Your task to perform on an android device: Search for razer thresher on ebay, select the first entry, add it to the cart, then select checkout. Image 0: 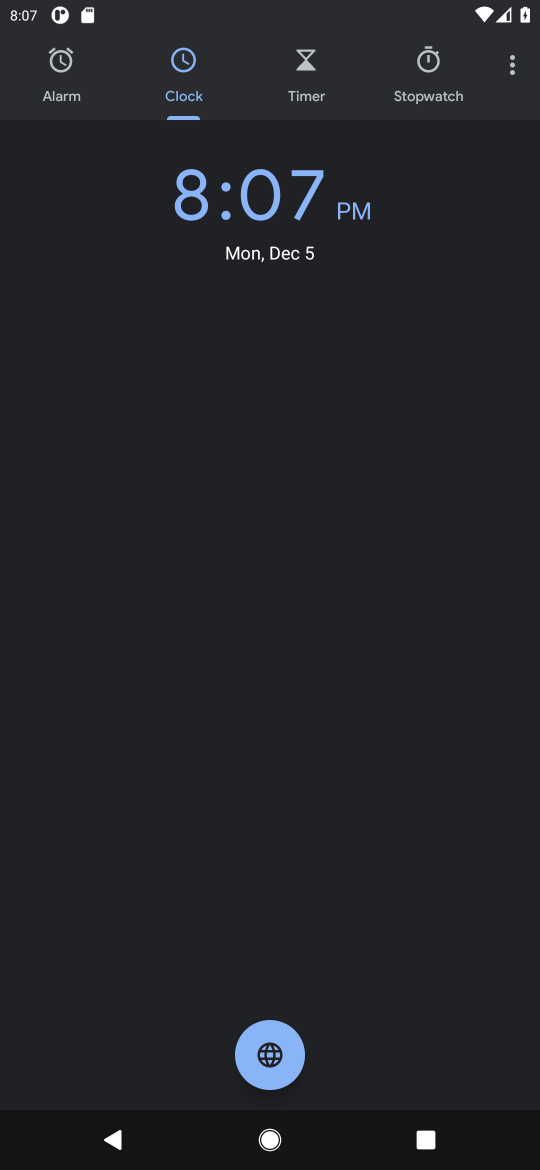
Step 0: press home button
Your task to perform on an android device: Search for razer thresher on ebay, select the first entry, add it to the cart, then select checkout. Image 1: 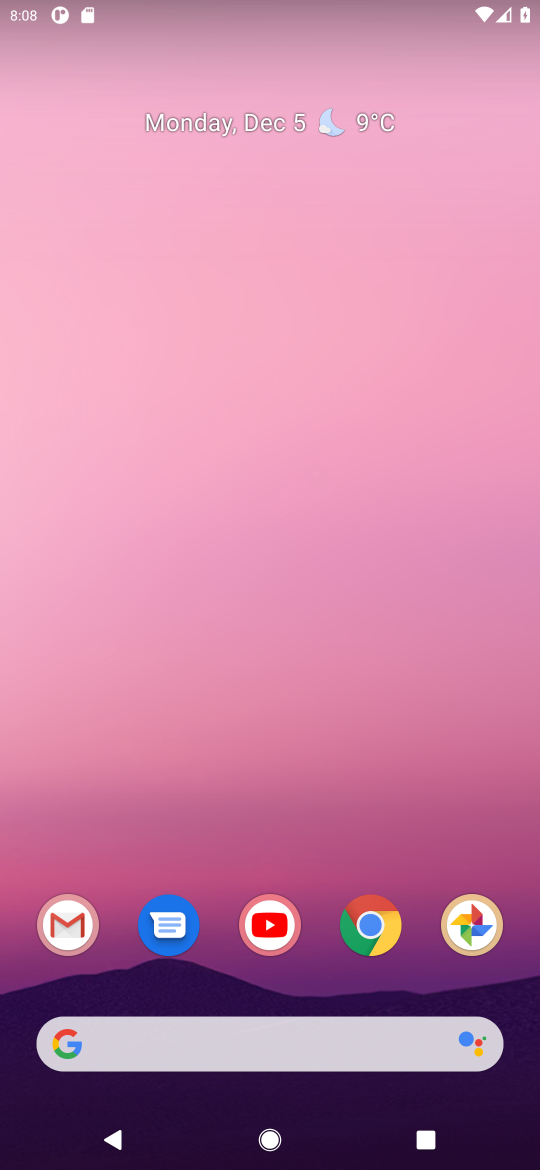
Step 1: click (378, 932)
Your task to perform on an android device: Search for razer thresher on ebay, select the first entry, add it to the cart, then select checkout. Image 2: 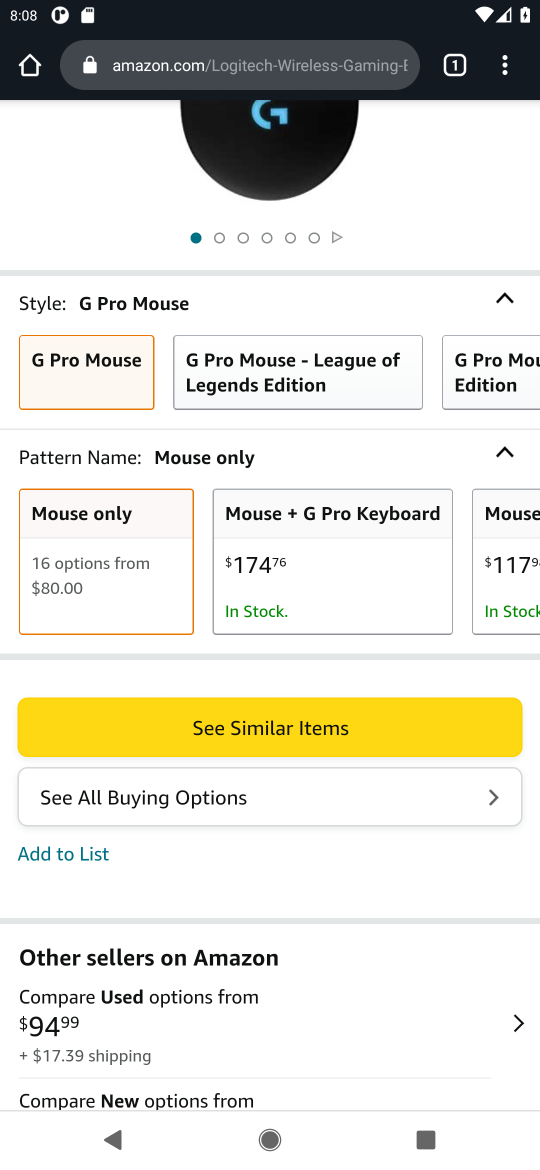
Step 2: click (144, 79)
Your task to perform on an android device: Search for razer thresher on ebay, select the first entry, add it to the cart, then select checkout. Image 3: 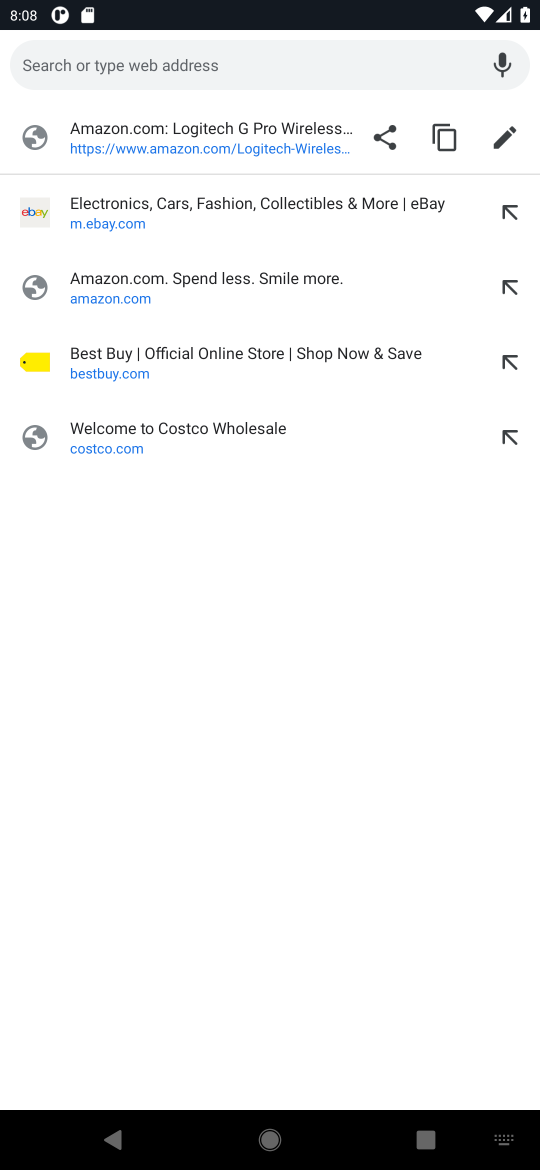
Step 3: click (119, 228)
Your task to perform on an android device: Search for razer thresher on ebay, select the first entry, add it to the cart, then select checkout. Image 4: 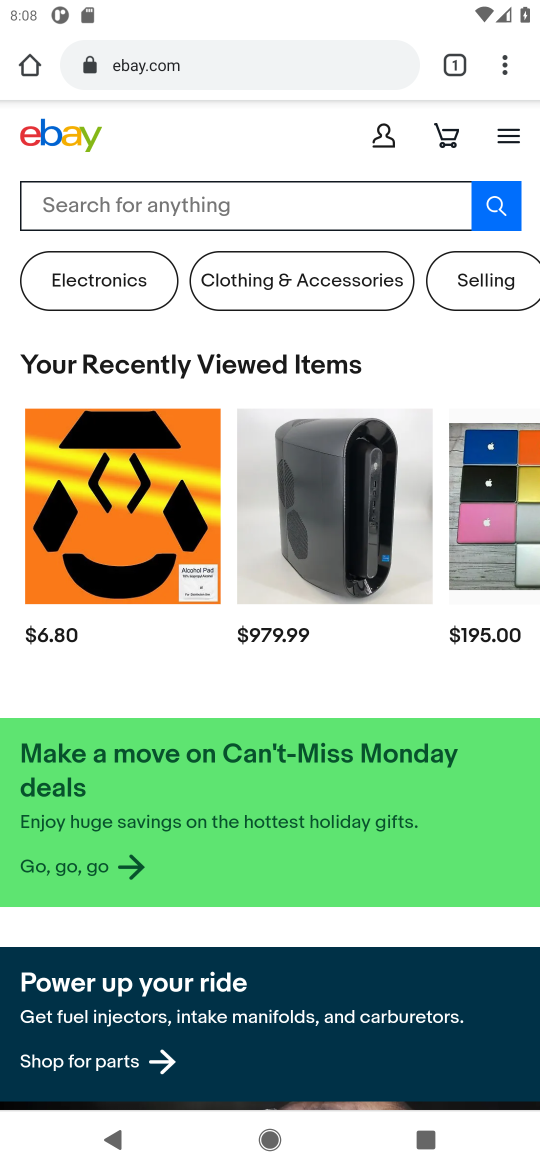
Step 4: click (90, 215)
Your task to perform on an android device: Search for razer thresher on ebay, select the first entry, add it to the cart, then select checkout. Image 5: 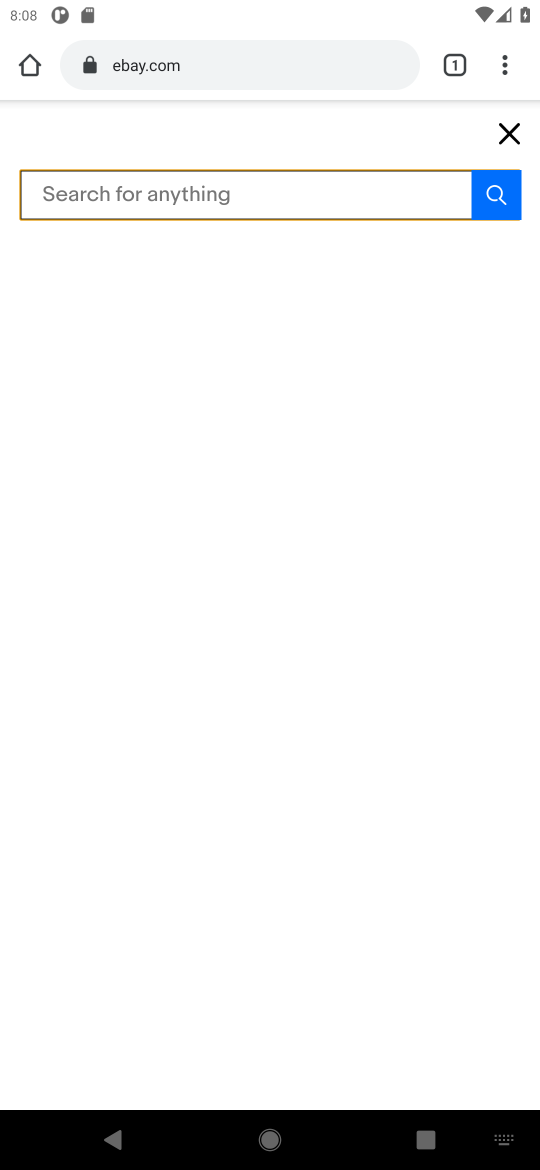
Step 5: type "razer thresher"
Your task to perform on an android device: Search for razer thresher on ebay, select the first entry, add it to the cart, then select checkout. Image 6: 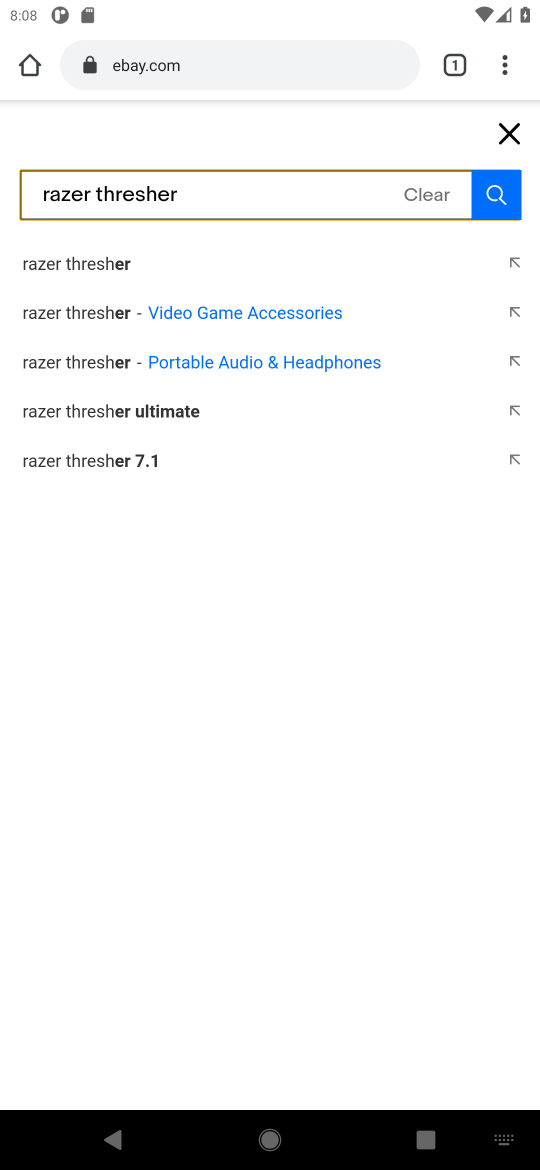
Step 6: click (91, 264)
Your task to perform on an android device: Search for razer thresher on ebay, select the first entry, add it to the cart, then select checkout. Image 7: 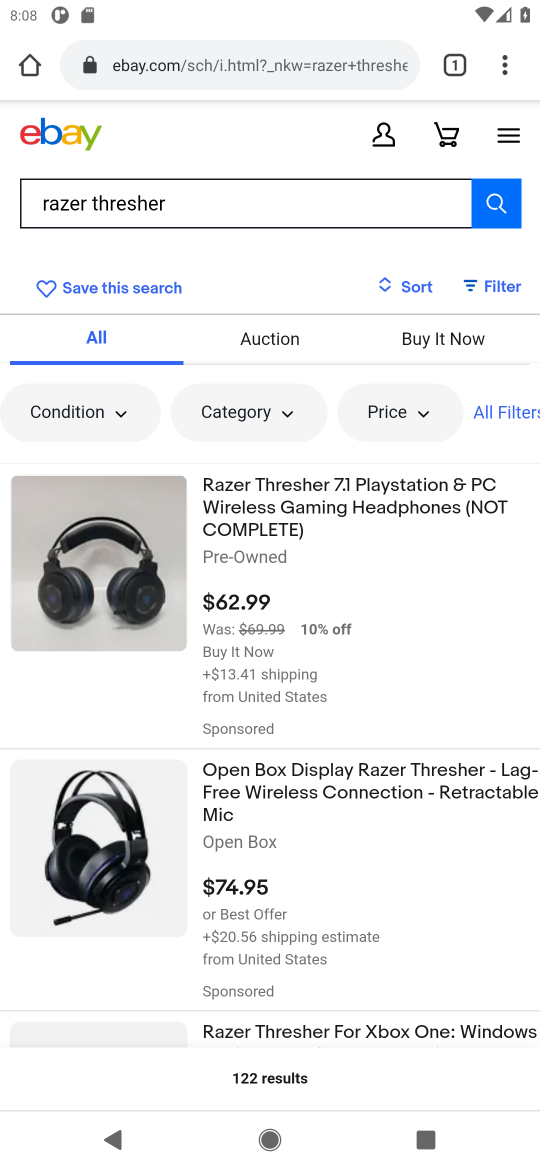
Step 7: click (250, 536)
Your task to perform on an android device: Search for razer thresher on ebay, select the first entry, add it to the cart, then select checkout. Image 8: 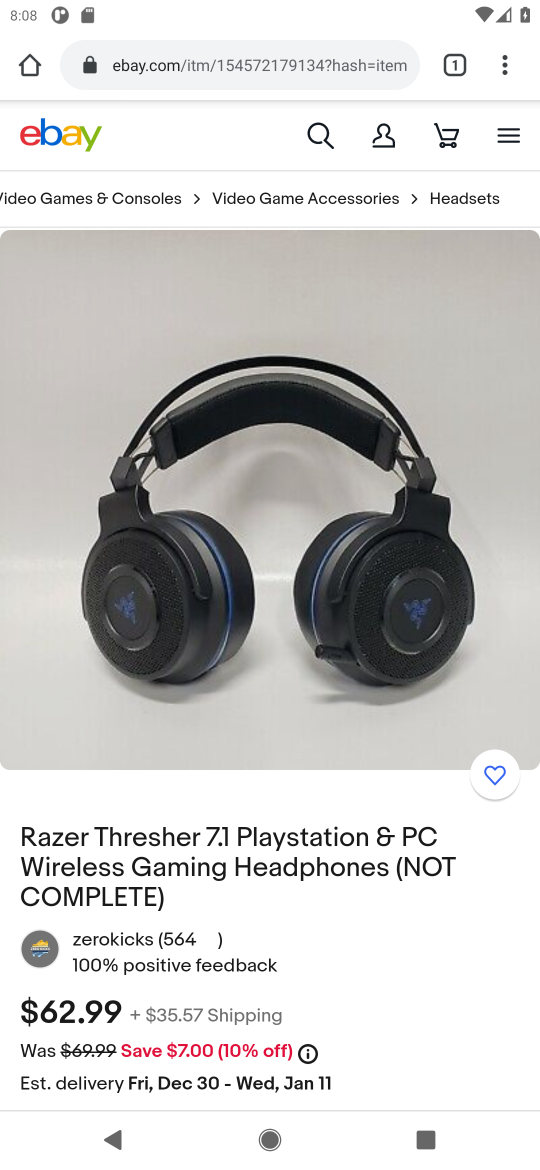
Step 8: drag from (310, 932) to (270, 365)
Your task to perform on an android device: Search for razer thresher on ebay, select the first entry, add it to the cart, then select checkout. Image 9: 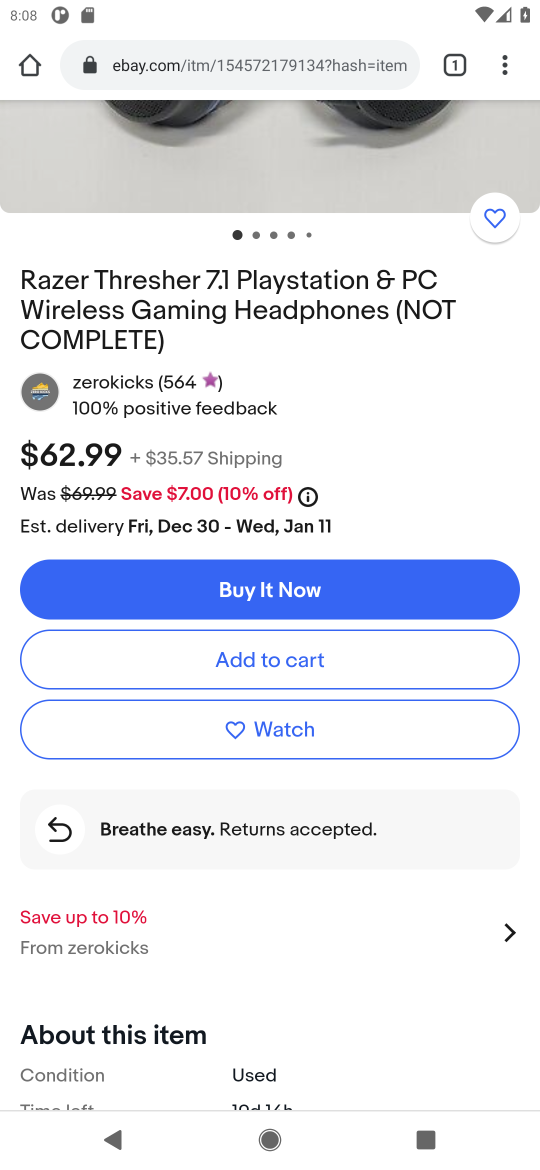
Step 9: click (260, 659)
Your task to perform on an android device: Search for razer thresher on ebay, select the first entry, add it to the cart, then select checkout. Image 10: 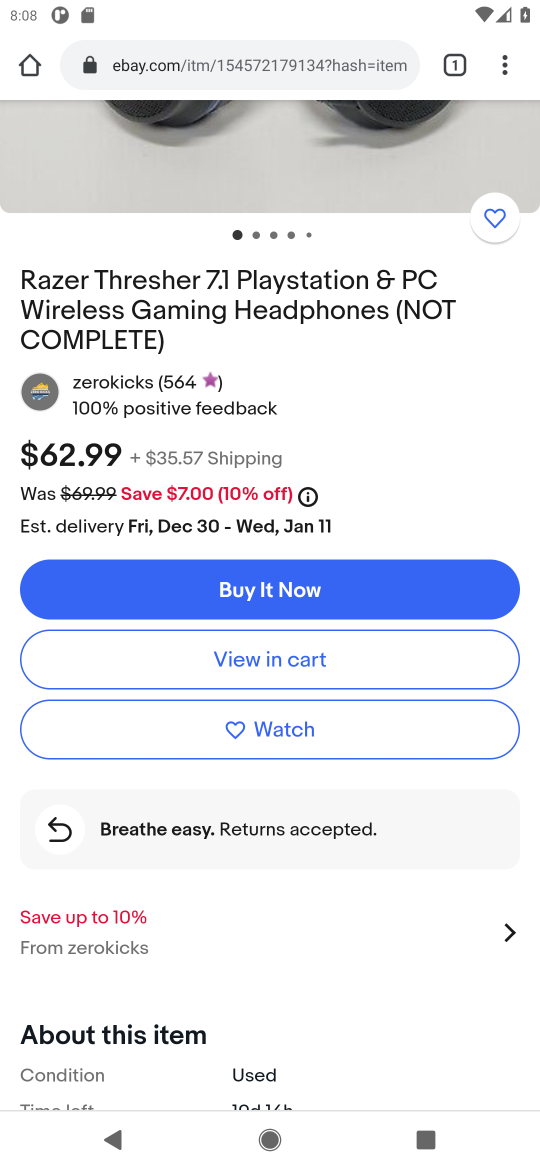
Step 10: click (260, 659)
Your task to perform on an android device: Search for razer thresher on ebay, select the first entry, add it to the cart, then select checkout. Image 11: 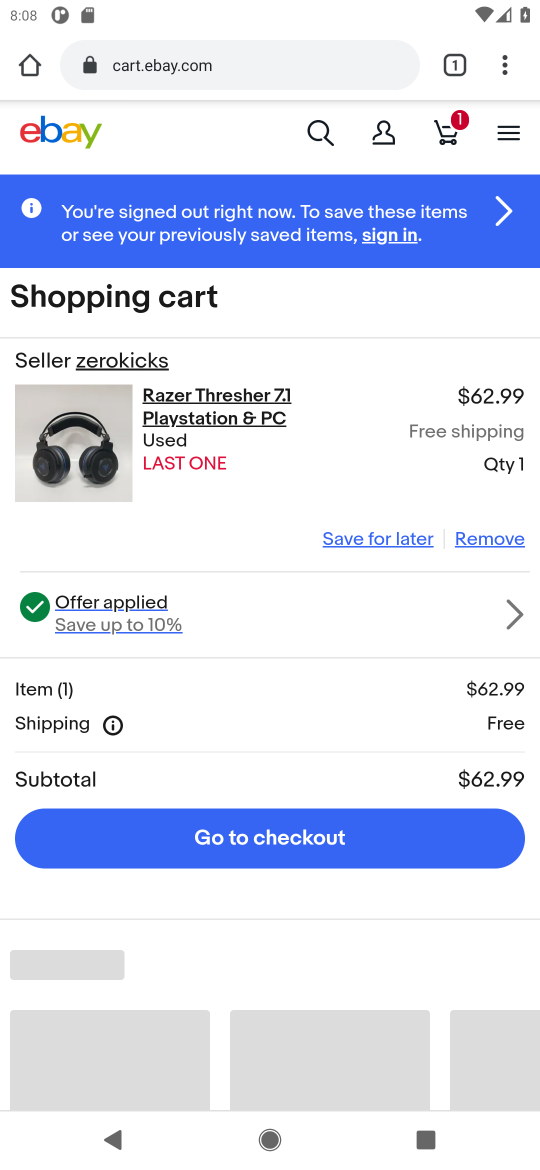
Step 11: click (262, 840)
Your task to perform on an android device: Search for razer thresher on ebay, select the first entry, add it to the cart, then select checkout. Image 12: 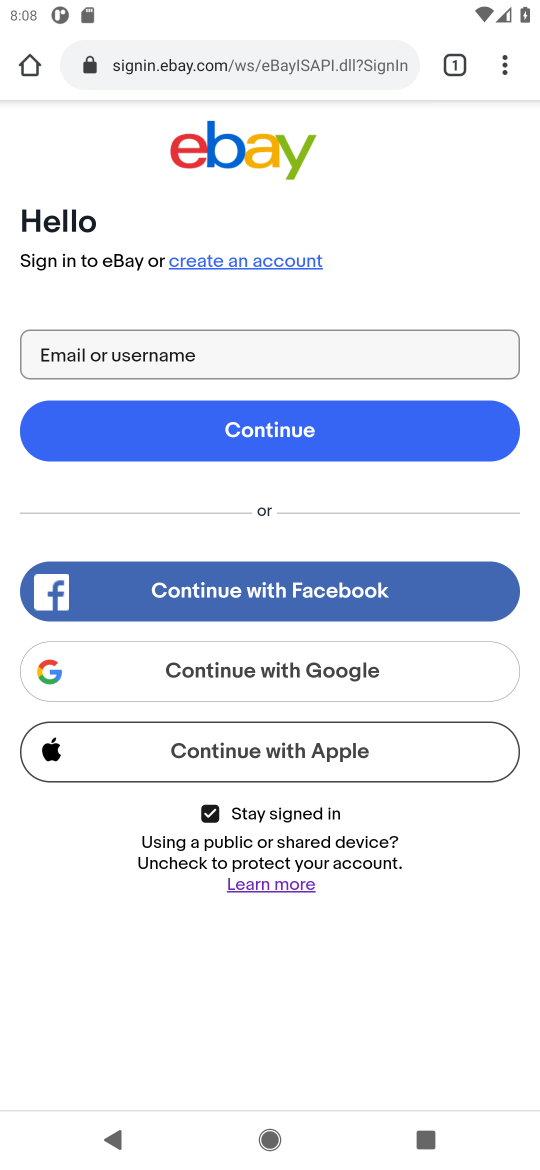
Step 12: task complete